Your task to perform on an android device: Is it going to rain this weekend? Image 0: 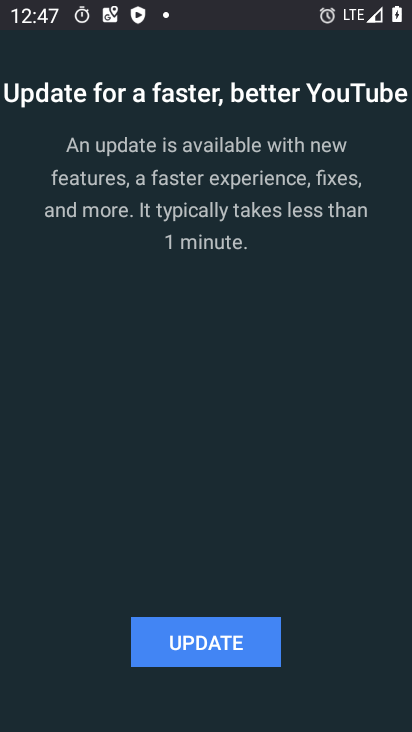
Step 0: press home button
Your task to perform on an android device: Is it going to rain this weekend? Image 1: 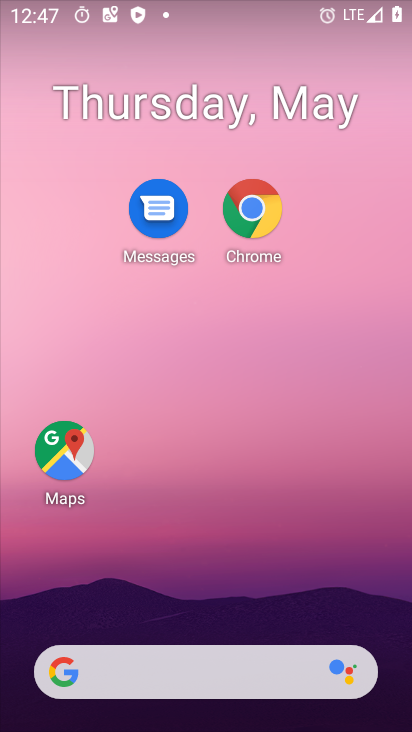
Step 1: drag from (164, 329) to (154, 179)
Your task to perform on an android device: Is it going to rain this weekend? Image 2: 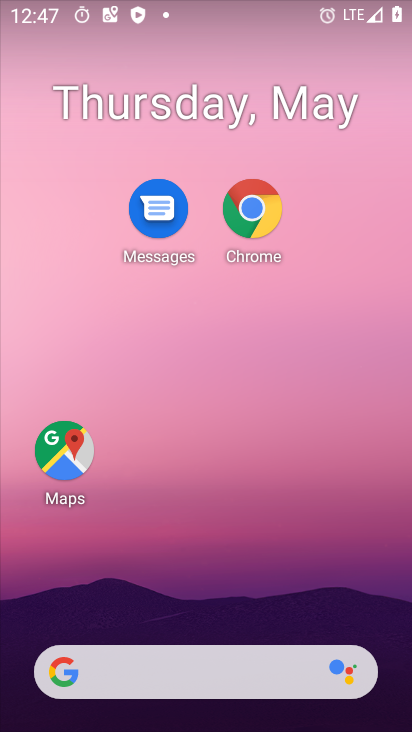
Step 2: click (230, 167)
Your task to perform on an android device: Is it going to rain this weekend? Image 3: 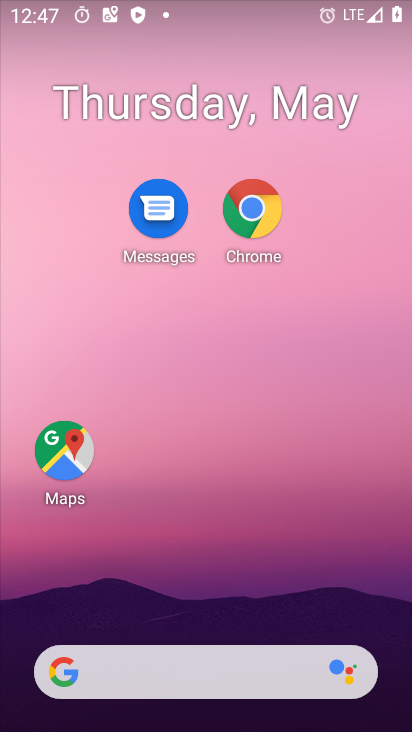
Step 3: click (168, 668)
Your task to perform on an android device: Is it going to rain this weekend? Image 4: 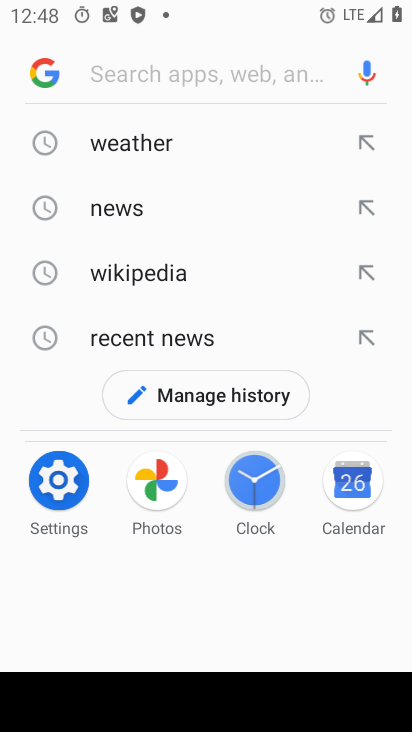
Step 4: click (127, 145)
Your task to perform on an android device: Is it going to rain this weekend? Image 5: 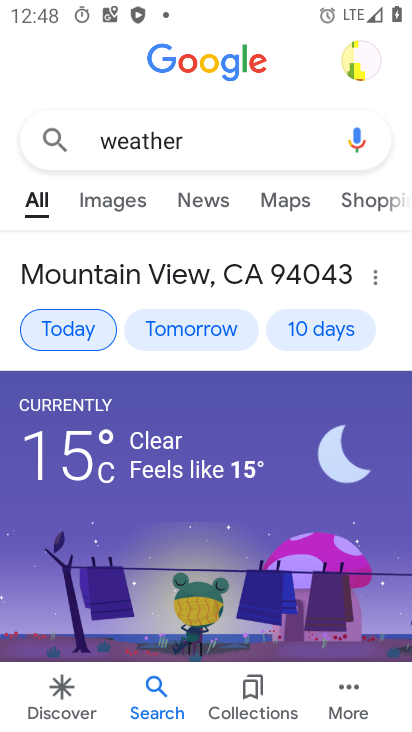
Step 5: drag from (165, 484) to (188, 325)
Your task to perform on an android device: Is it going to rain this weekend? Image 6: 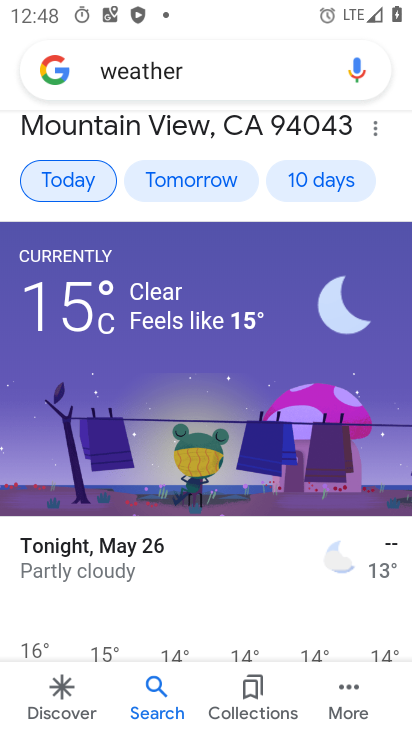
Step 6: drag from (228, 629) to (288, 310)
Your task to perform on an android device: Is it going to rain this weekend? Image 7: 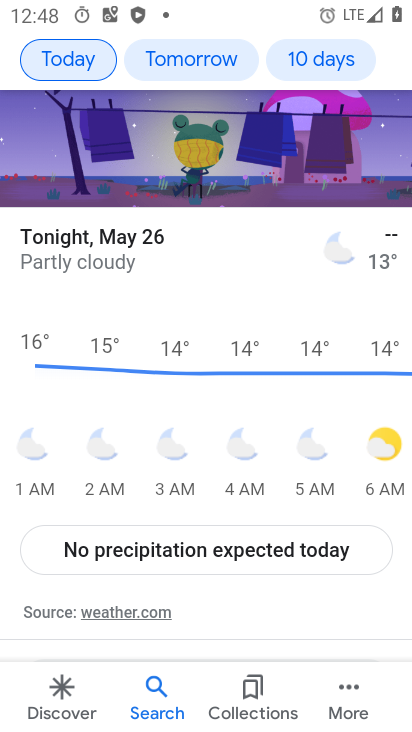
Step 7: click (308, 64)
Your task to perform on an android device: Is it going to rain this weekend? Image 8: 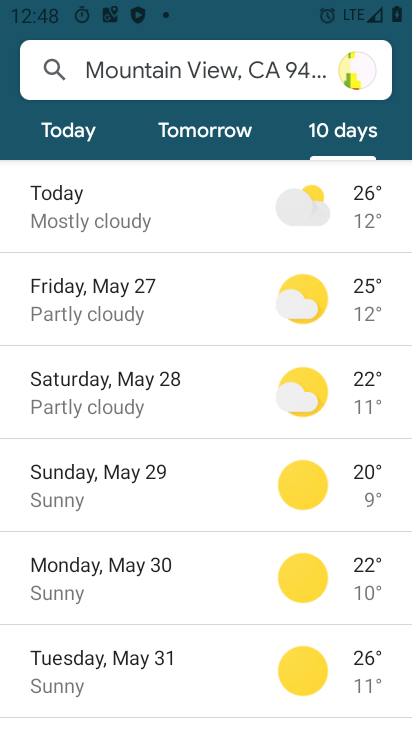
Step 8: task complete